Your task to perform on an android device: See recent photos Image 0: 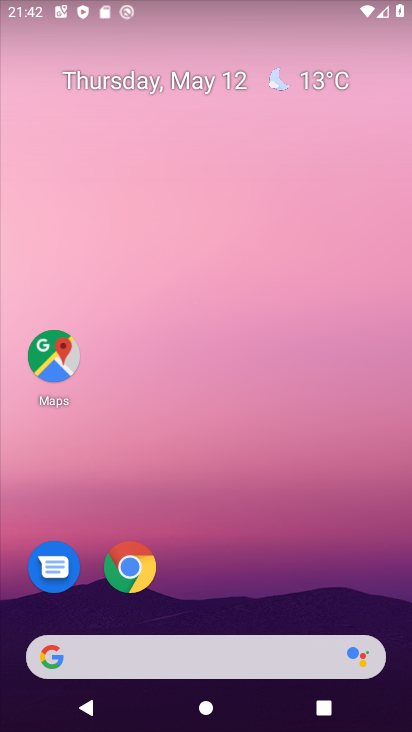
Step 0: press home button
Your task to perform on an android device: See recent photos Image 1: 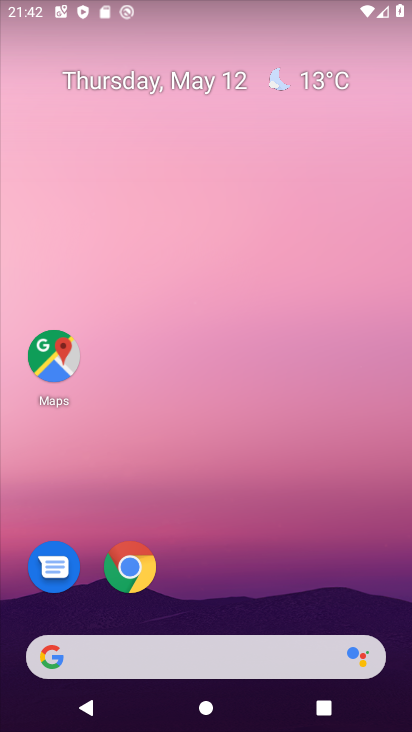
Step 1: drag from (226, 614) to (212, 178)
Your task to perform on an android device: See recent photos Image 2: 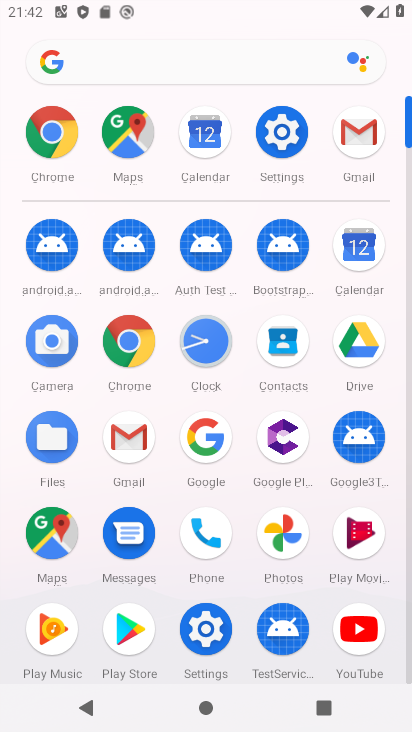
Step 2: click (280, 526)
Your task to perform on an android device: See recent photos Image 3: 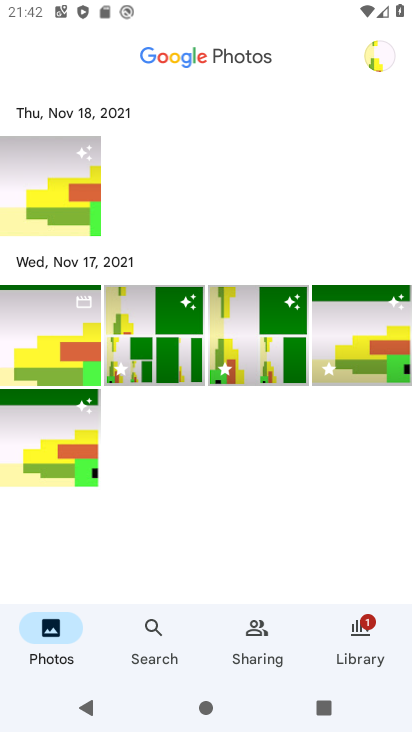
Step 3: click (41, 201)
Your task to perform on an android device: See recent photos Image 4: 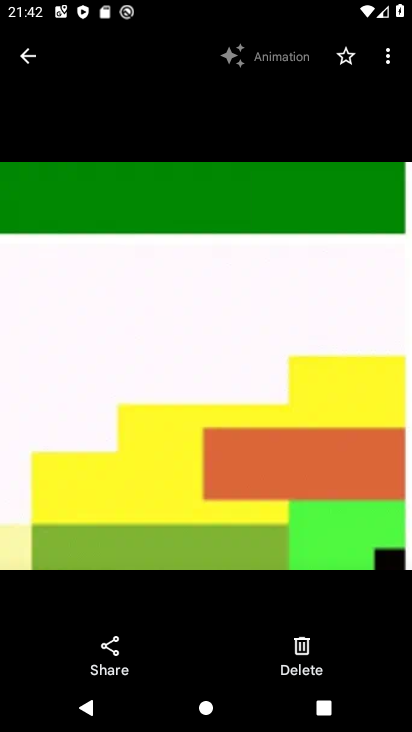
Step 4: task complete